Your task to perform on an android device: Open internet settings Image 0: 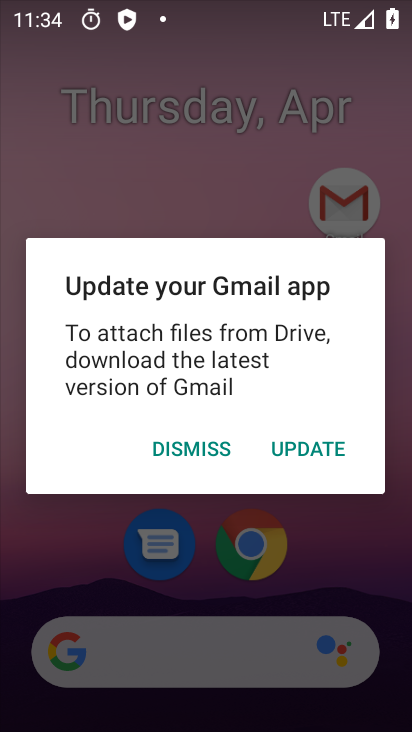
Step 0: press home button
Your task to perform on an android device: Open internet settings Image 1: 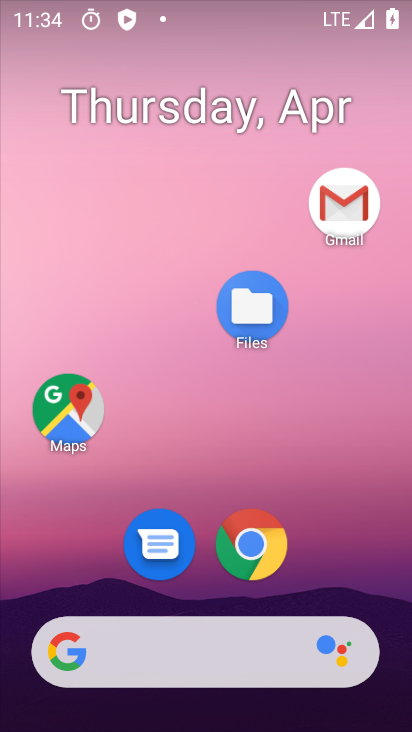
Step 1: drag from (305, 392) to (289, 111)
Your task to perform on an android device: Open internet settings Image 2: 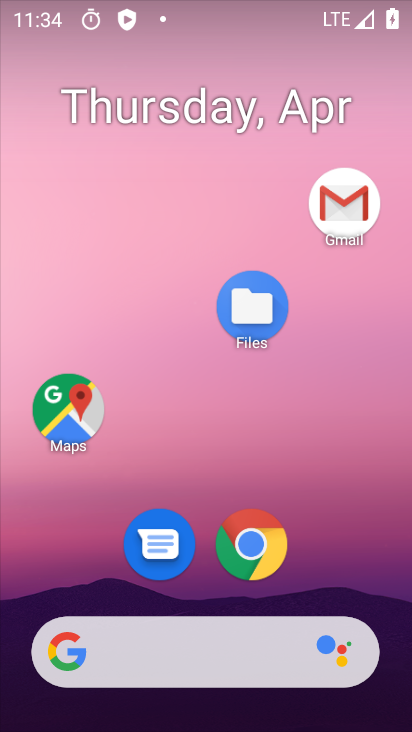
Step 2: drag from (216, 483) to (230, 109)
Your task to perform on an android device: Open internet settings Image 3: 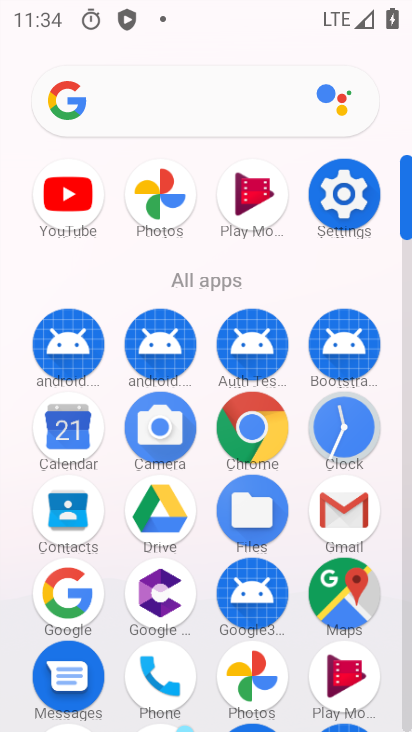
Step 3: click (346, 224)
Your task to perform on an android device: Open internet settings Image 4: 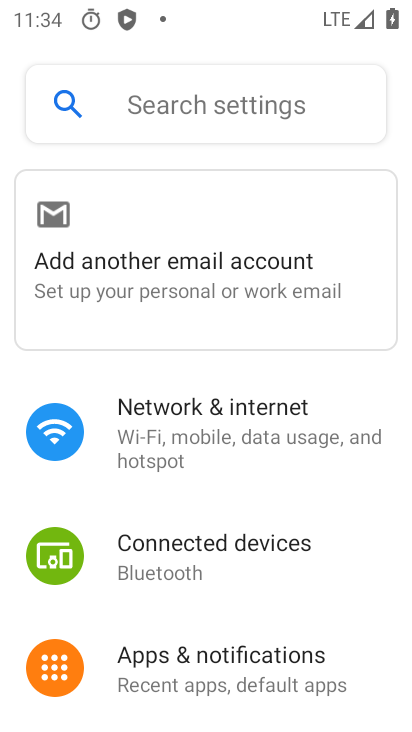
Step 4: click (196, 439)
Your task to perform on an android device: Open internet settings Image 5: 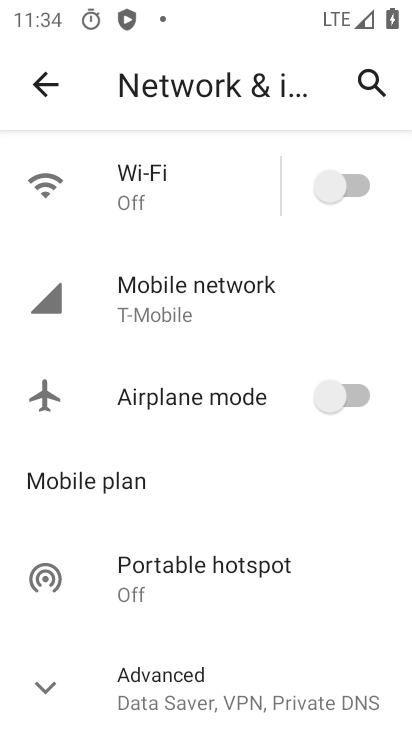
Step 5: task complete